Your task to perform on an android device: show emergency info Image 0: 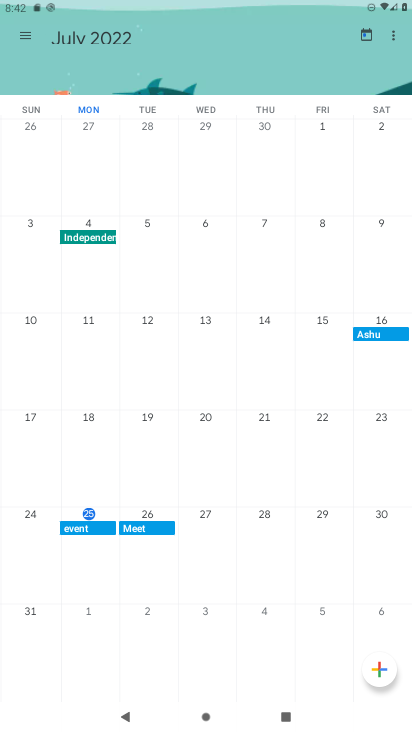
Step 0: press home button
Your task to perform on an android device: show emergency info Image 1: 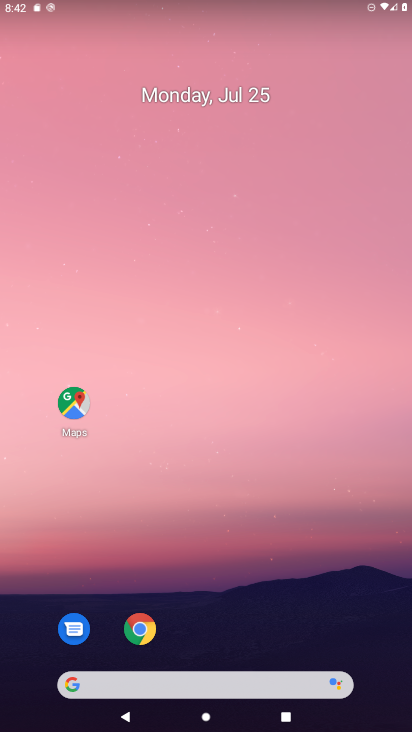
Step 1: drag from (228, 656) to (222, 0)
Your task to perform on an android device: show emergency info Image 2: 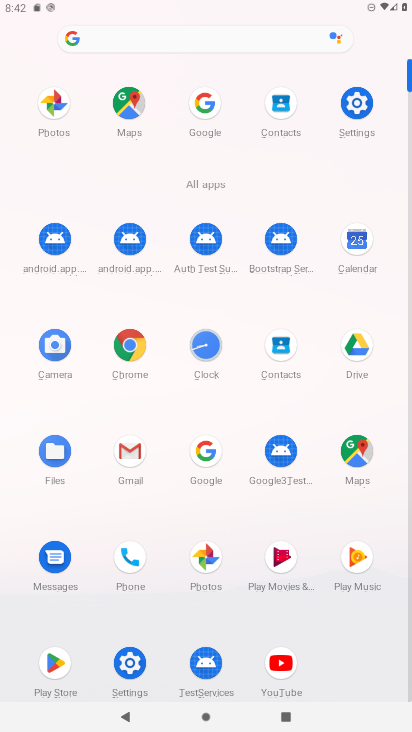
Step 2: click (356, 108)
Your task to perform on an android device: show emergency info Image 3: 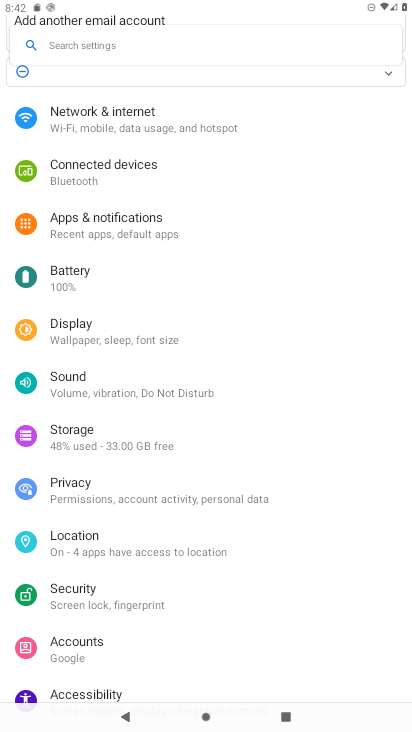
Step 3: drag from (249, 615) to (216, 147)
Your task to perform on an android device: show emergency info Image 4: 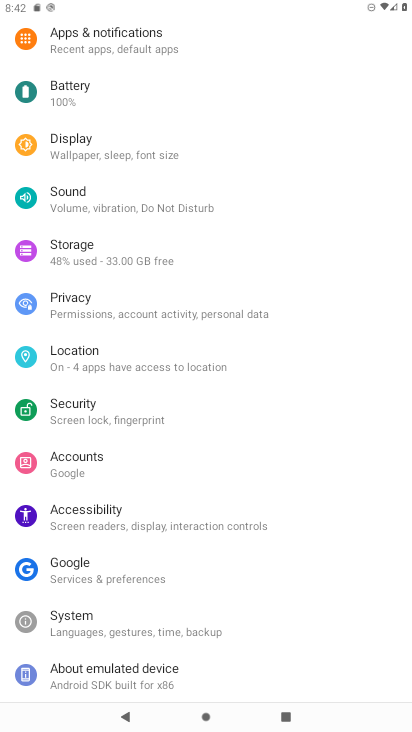
Step 4: click (91, 675)
Your task to perform on an android device: show emergency info Image 5: 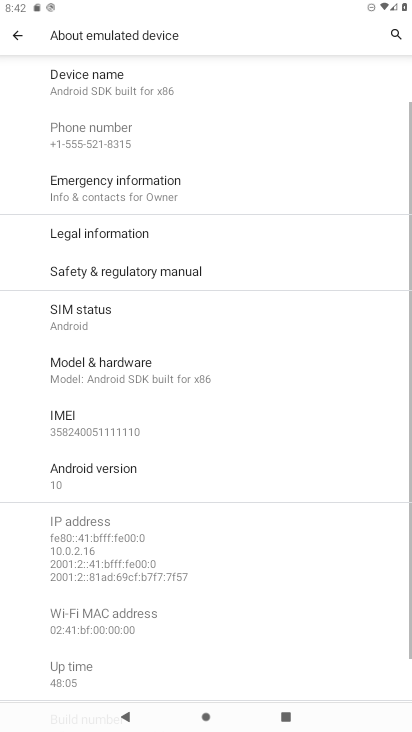
Step 5: click (89, 194)
Your task to perform on an android device: show emergency info Image 6: 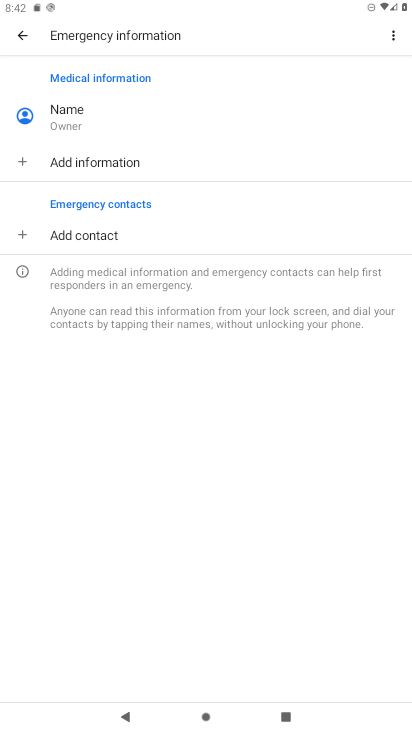
Step 6: task complete